Your task to perform on an android device: turn on airplane mode Image 0: 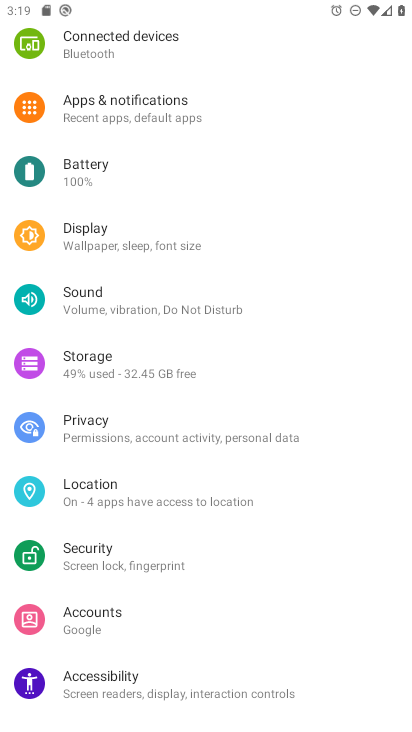
Step 0: drag from (255, 204) to (281, 472)
Your task to perform on an android device: turn on airplane mode Image 1: 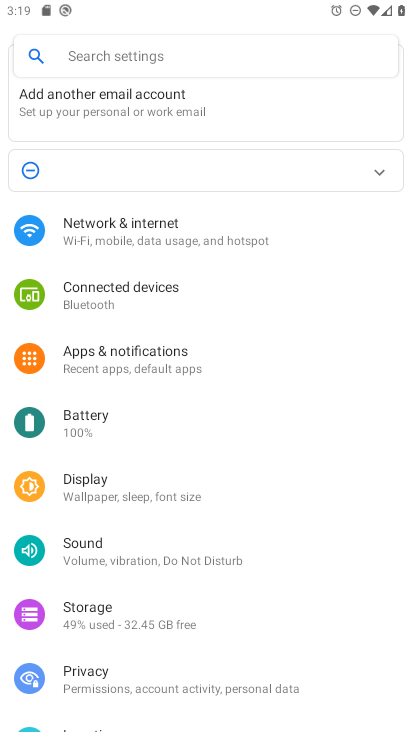
Step 1: click (136, 248)
Your task to perform on an android device: turn on airplane mode Image 2: 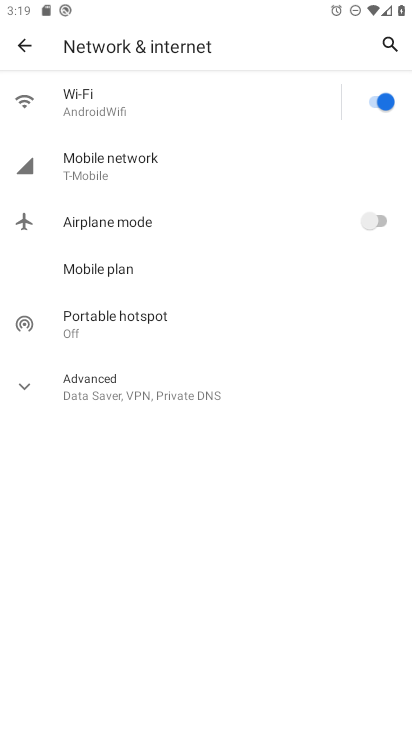
Step 2: click (382, 219)
Your task to perform on an android device: turn on airplane mode Image 3: 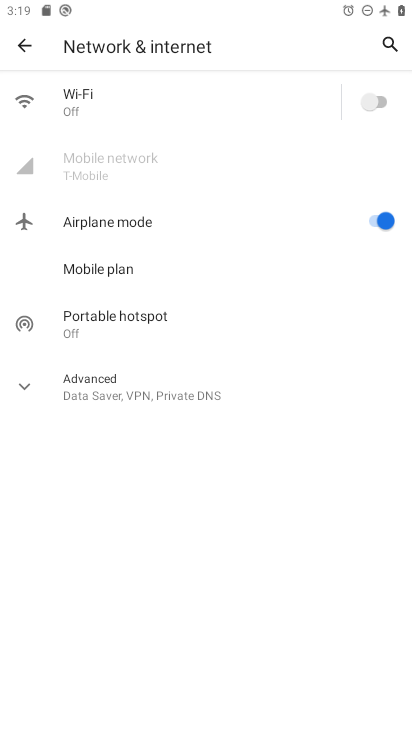
Step 3: task complete